Your task to perform on an android device: Open Google Image 0: 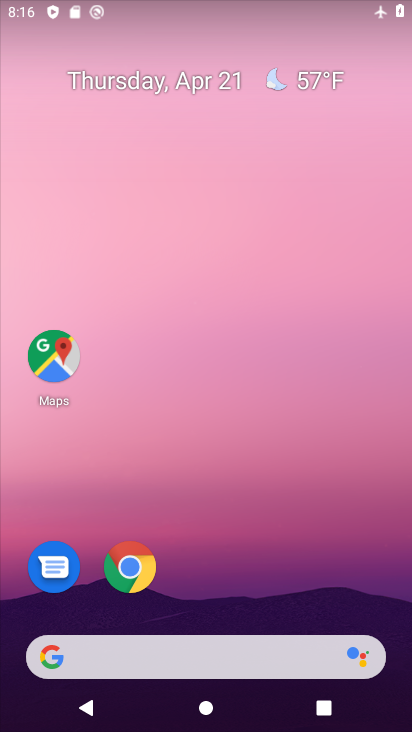
Step 0: drag from (189, 530) to (207, 25)
Your task to perform on an android device: Open Google Image 1: 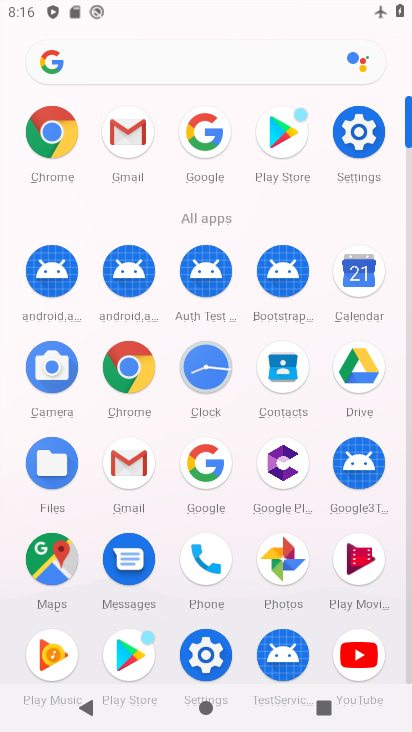
Step 1: click (209, 121)
Your task to perform on an android device: Open Google Image 2: 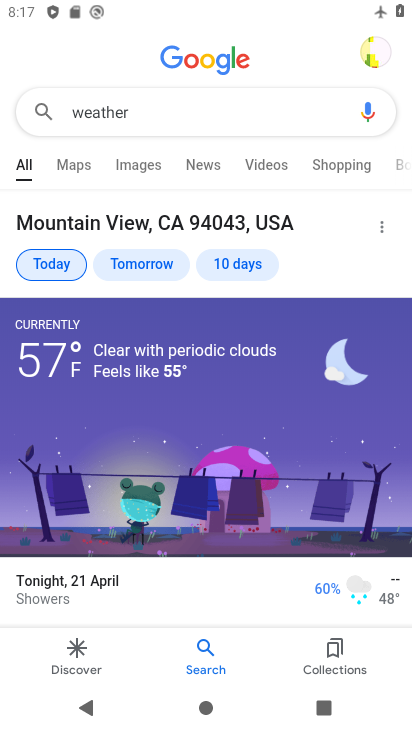
Step 2: task complete